Your task to perform on an android device: Show the shopping cart on target.com. Search for "logitech g502" on target.com, select the first entry, and add it to the cart. Image 0: 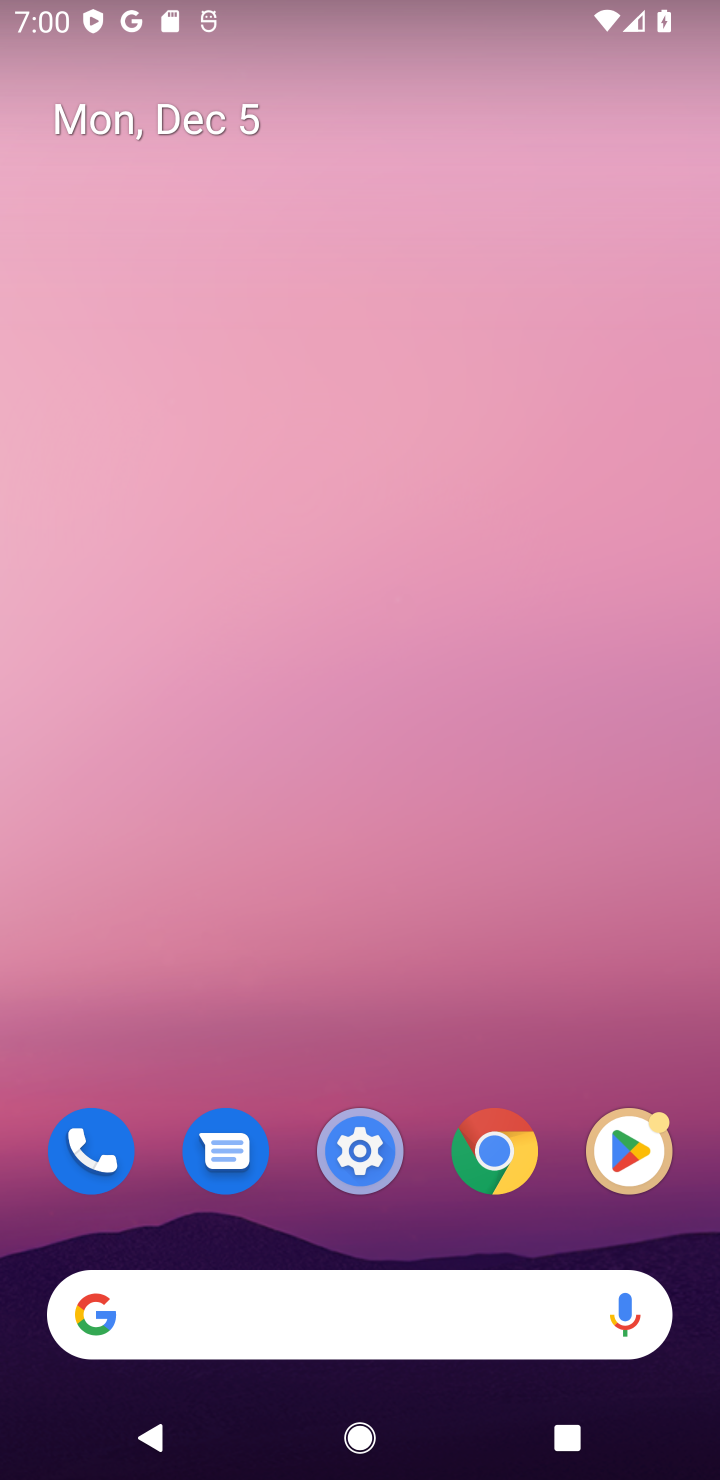
Step 0: click (457, 1325)
Your task to perform on an android device: Show the shopping cart on target.com. Search for "logitech g502" on target.com, select the first entry, and add it to the cart. Image 1: 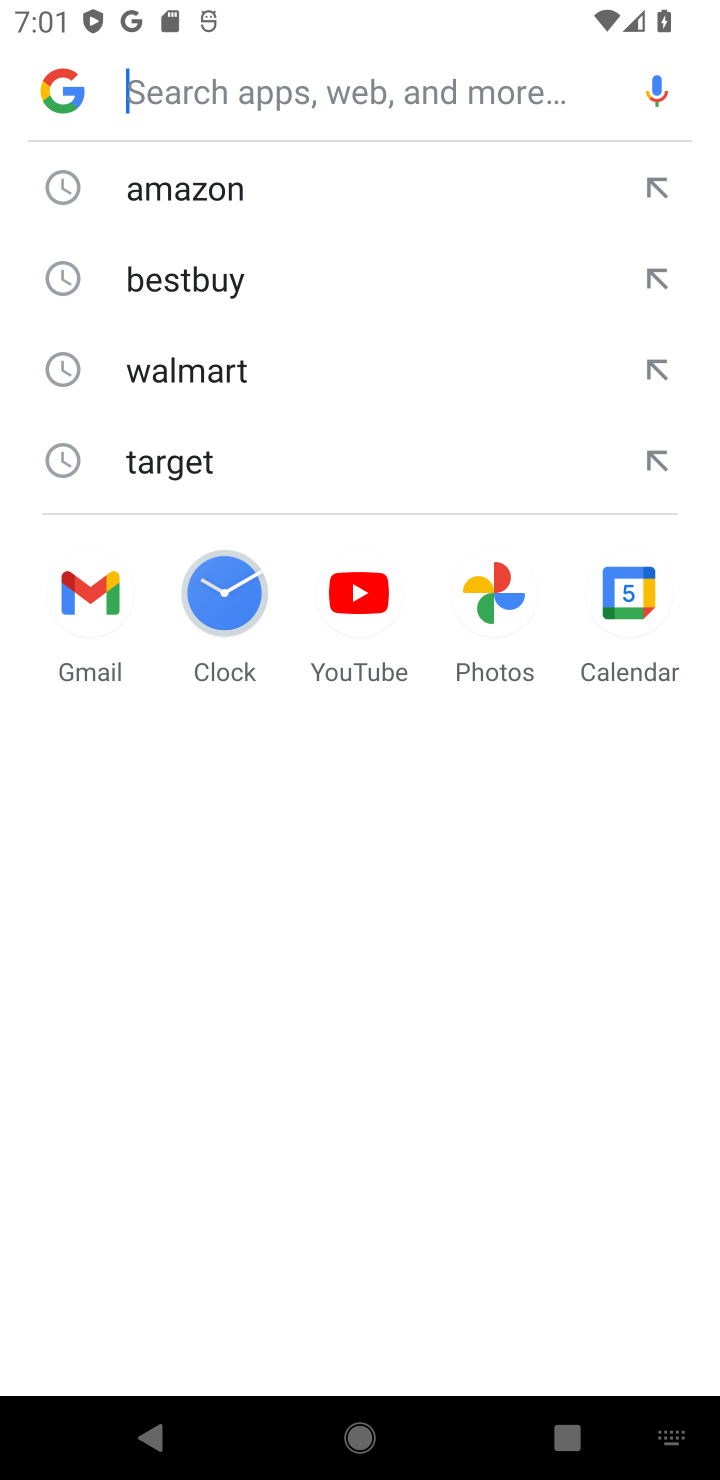
Step 1: type "target"
Your task to perform on an android device: Show the shopping cart on target.com. Search for "logitech g502" on target.com, select the first entry, and add it to the cart. Image 2: 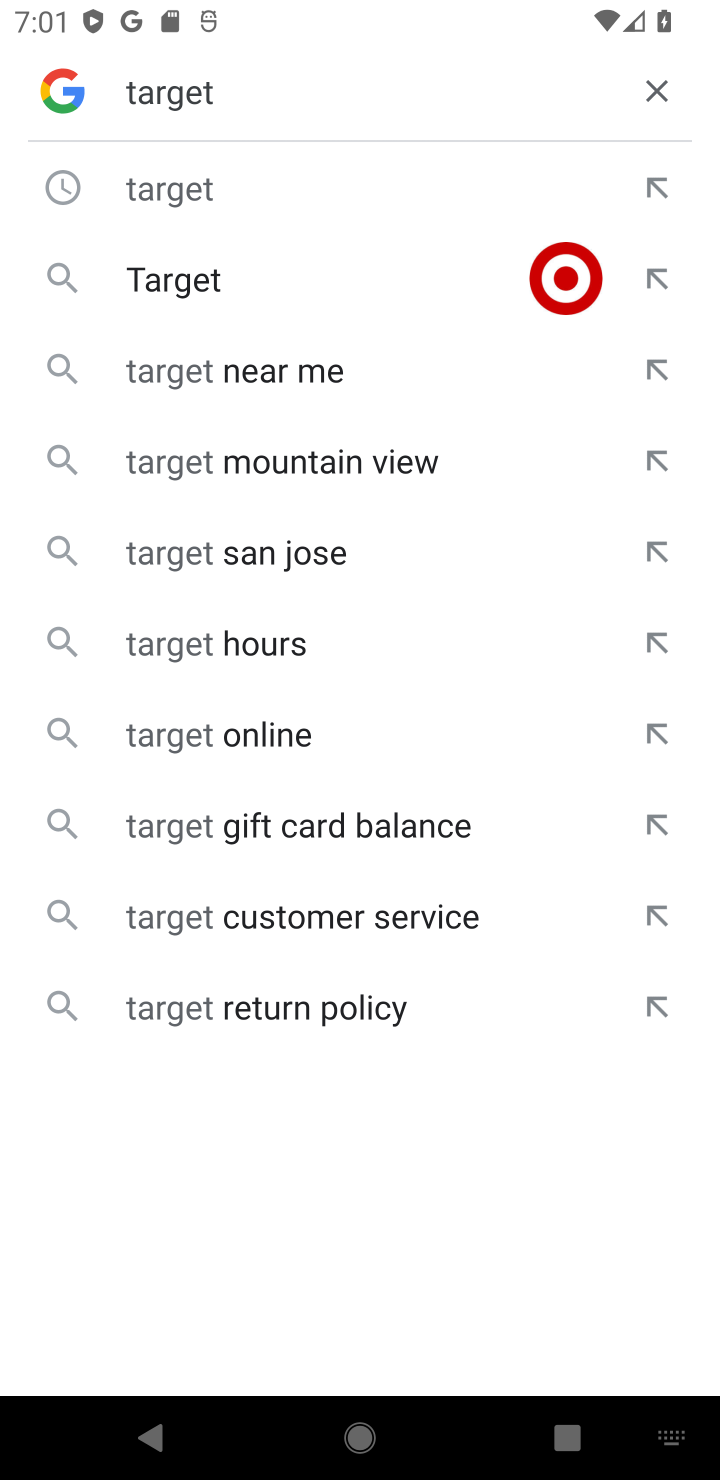
Step 2: click (278, 296)
Your task to perform on an android device: Show the shopping cart on target.com. Search for "logitech g502" on target.com, select the first entry, and add it to the cart. Image 3: 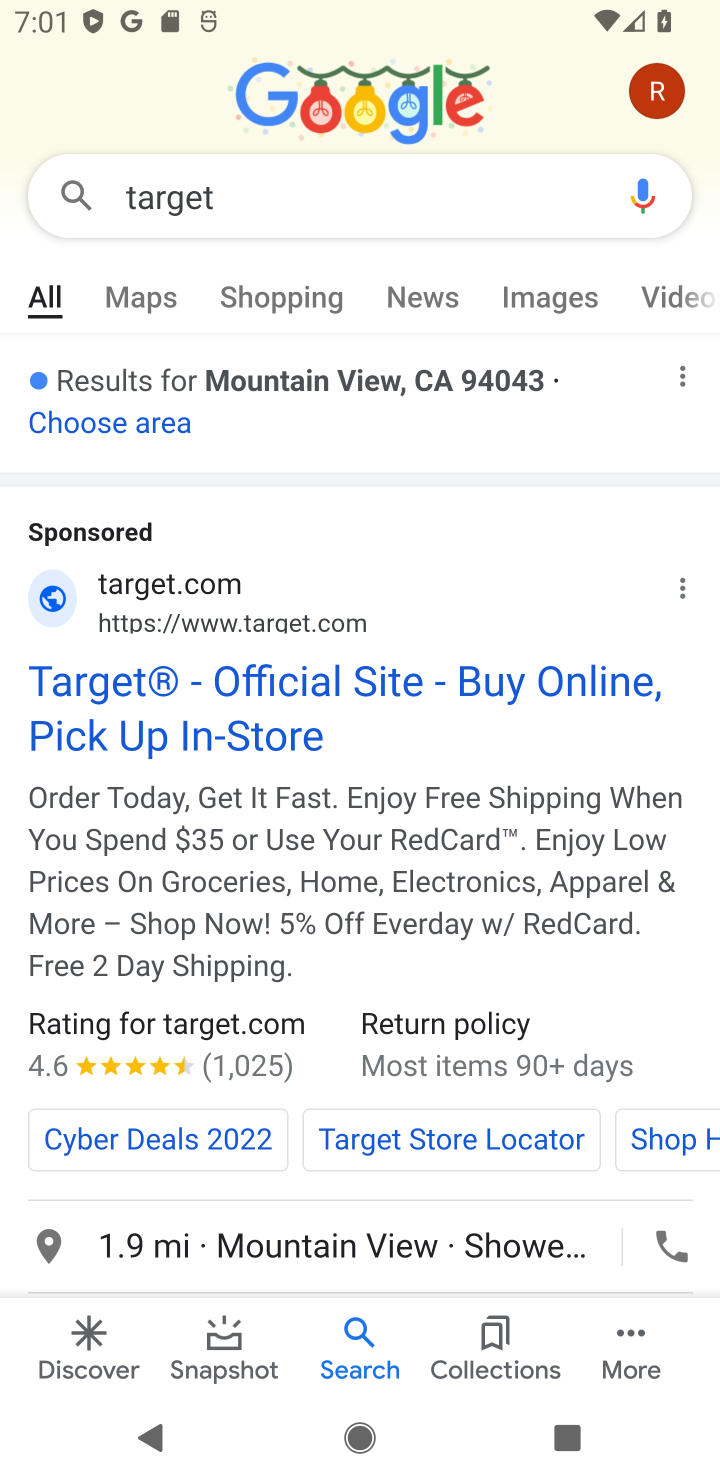
Step 3: click (220, 654)
Your task to perform on an android device: Show the shopping cart on target.com. Search for "logitech g502" on target.com, select the first entry, and add it to the cart. Image 4: 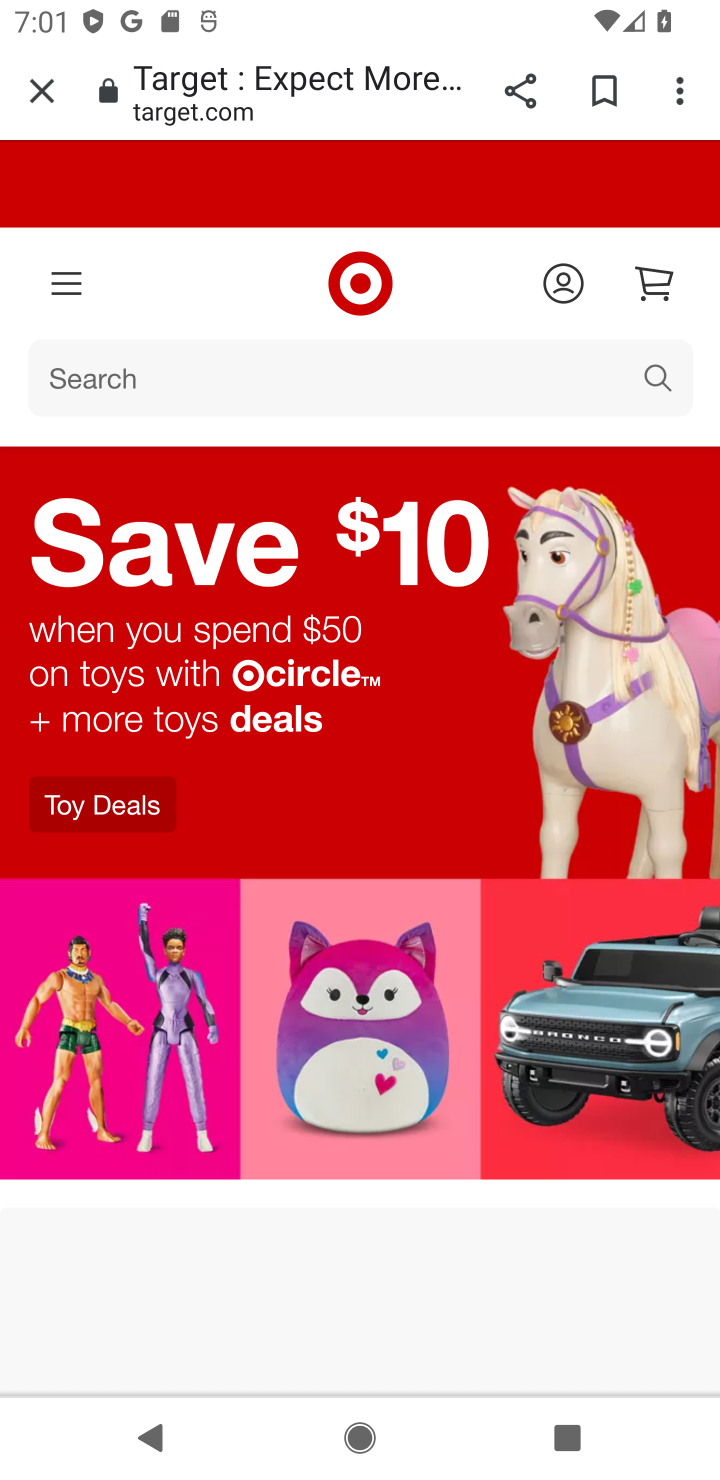
Step 4: click (180, 375)
Your task to perform on an android device: Show the shopping cart on target.com. Search for "logitech g502" on target.com, select the first entry, and add it to the cart. Image 5: 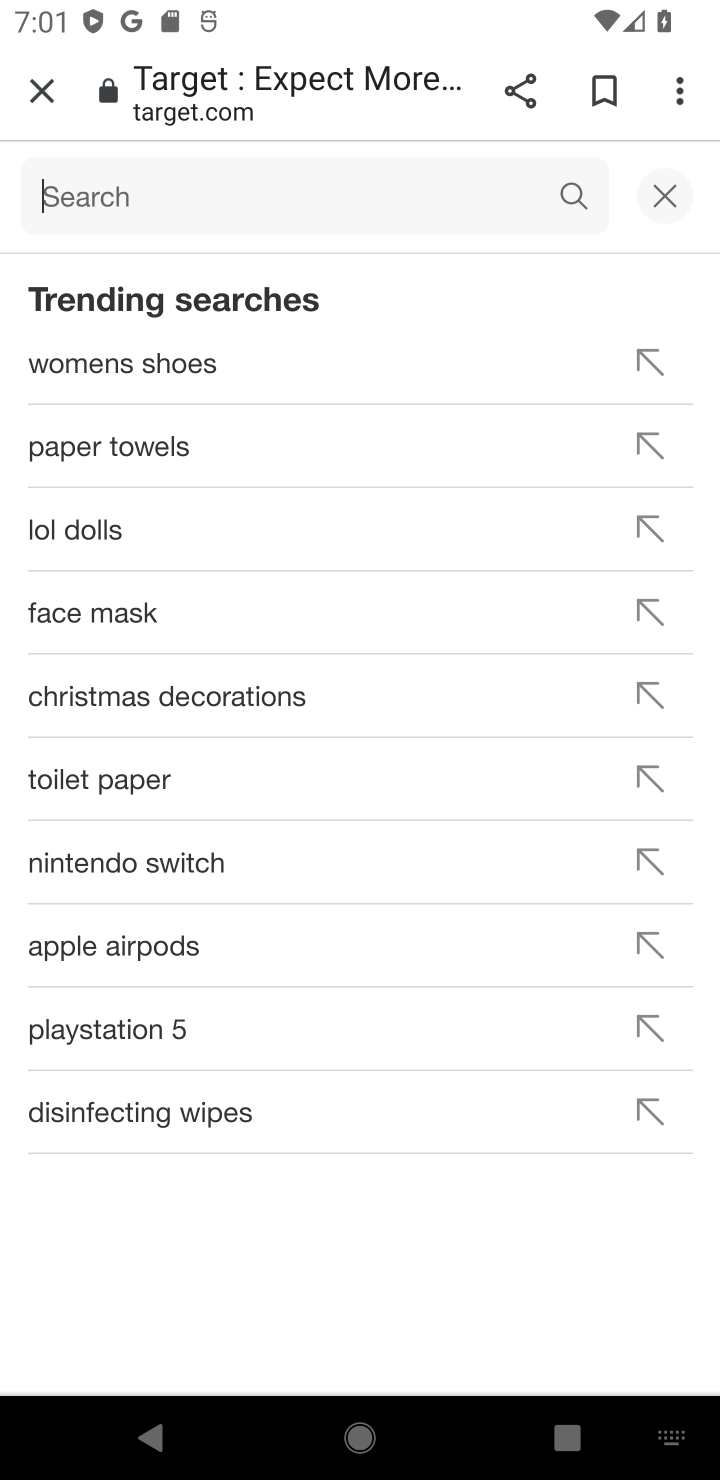
Step 5: type "logitech g502"
Your task to perform on an android device: Show the shopping cart on target.com. Search for "logitech g502" on target.com, select the first entry, and add it to the cart. Image 6: 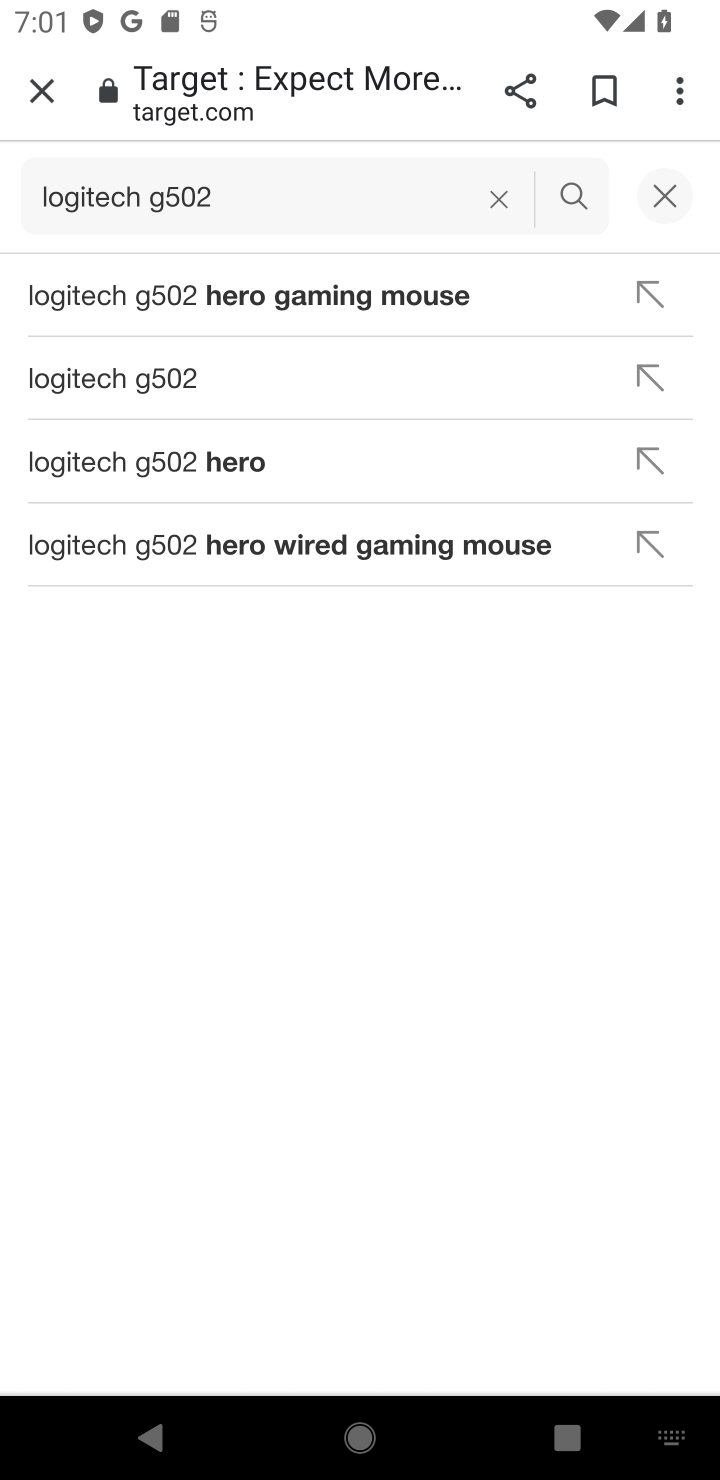
Step 6: click (564, 212)
Your task to perform on an android device: Show the shopping cart on target.com. Search for "logitech g502" on target.com, select the first entry, and add it to the cart. Image 7: 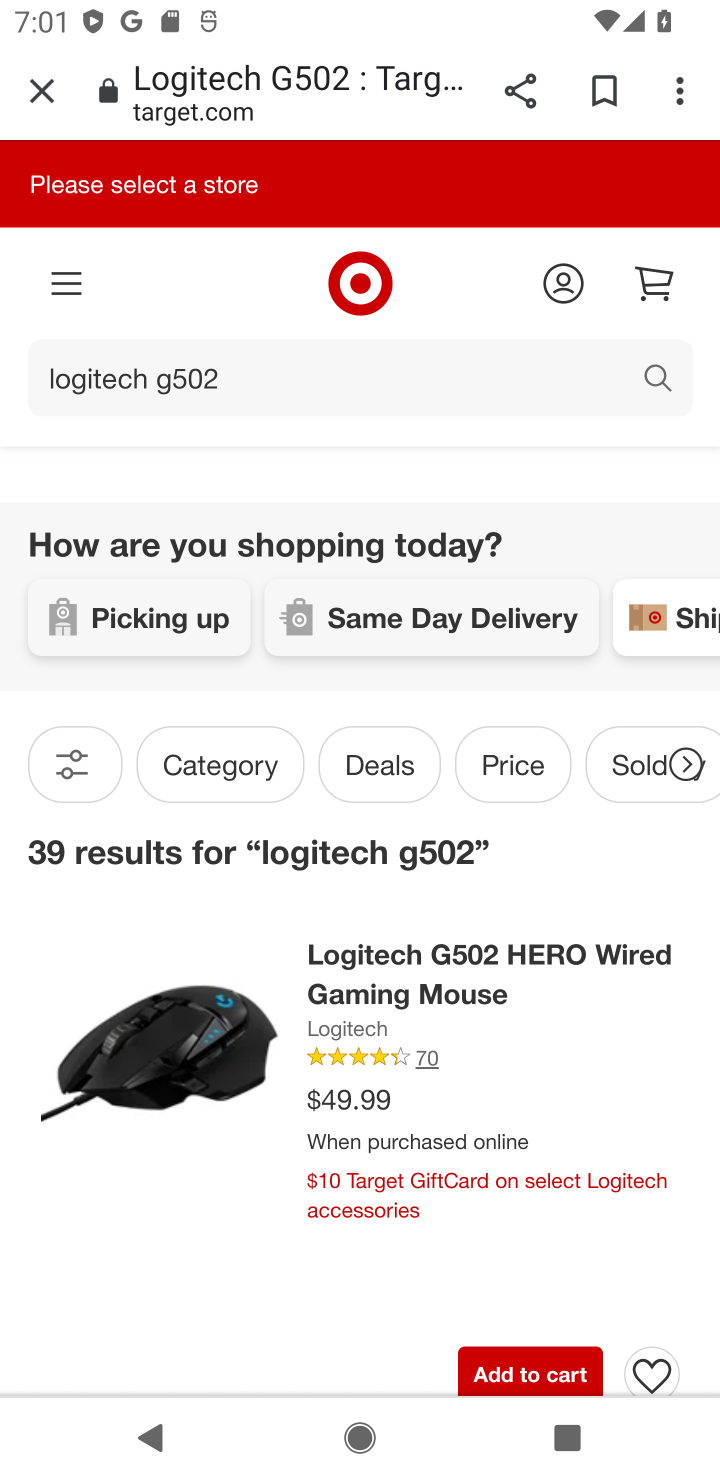
Step 7: click (501, 1383)
Your task to perform on an android device: Show the shopping cart on target.com. Search for "logitech g502" on target.com, select the first entry, and add it to the cart. Image 8: 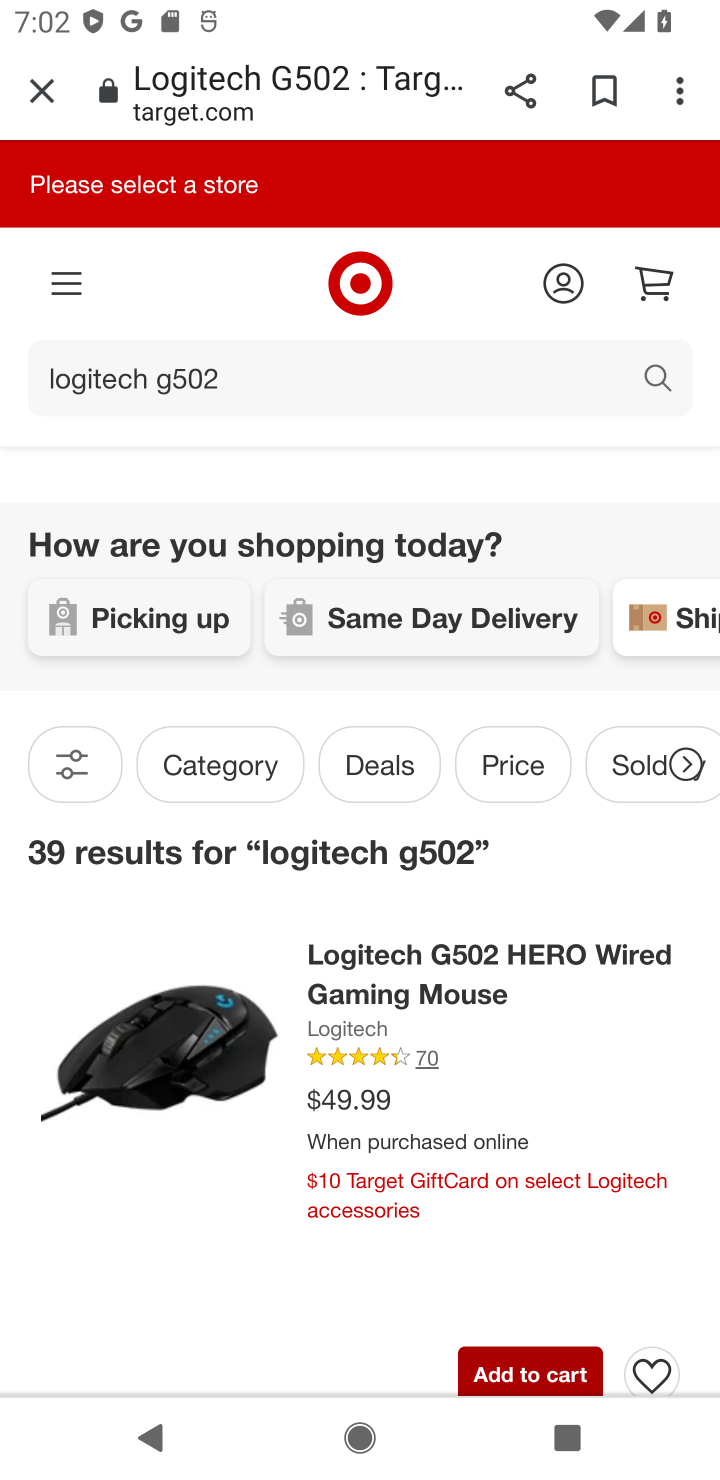
Step 8: task complete